Your task to perform on an android device: Open settings on Google Maps Image 0: 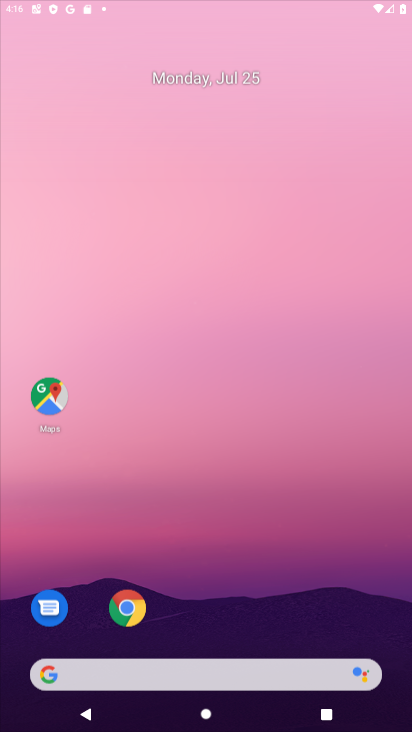
Step 0: press home button
Your task to perform on an android device: Open settings on Google Maps Image 1: 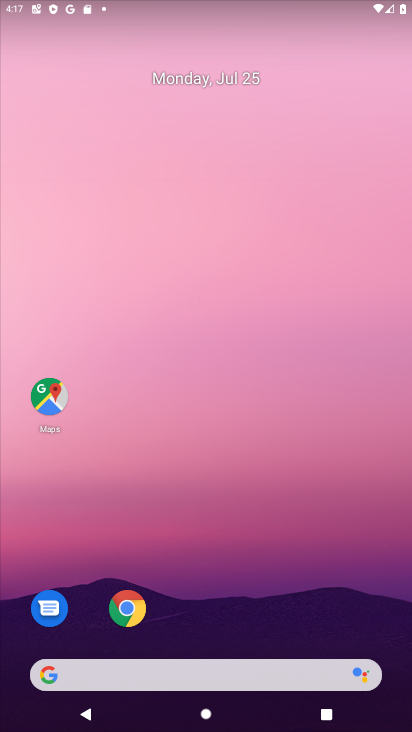
Step 1: click (50, 391)
Your task to perform on an android device: Open settings on Google Maps Image 2: 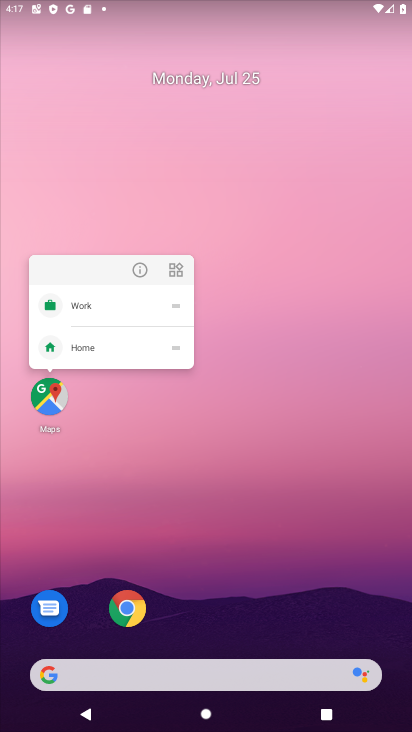
Step 2: click (103, 459)
Your task to perform on an android device: Open settings on Google Maps Image 3: 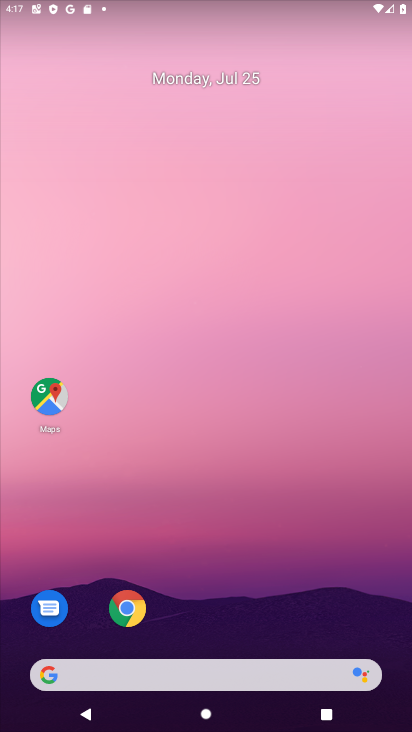
Step 3: click (49, 394)
Your task to perform on an android device: Open settings on Google Maps Image 4: 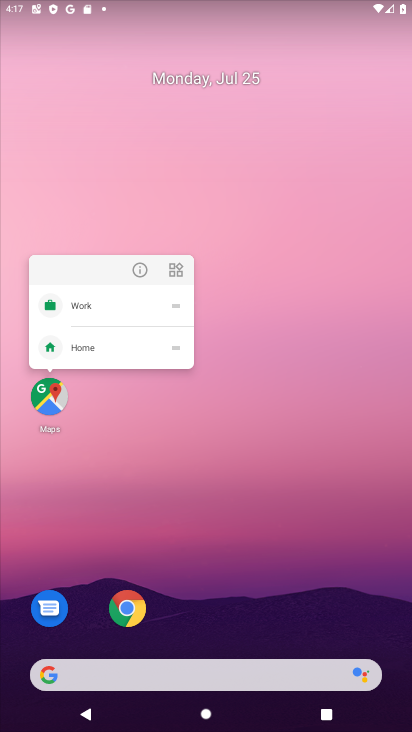
Step 4: click (42, 398)
Your task to perform on an android device: Open settings on Google Maps Image 5: 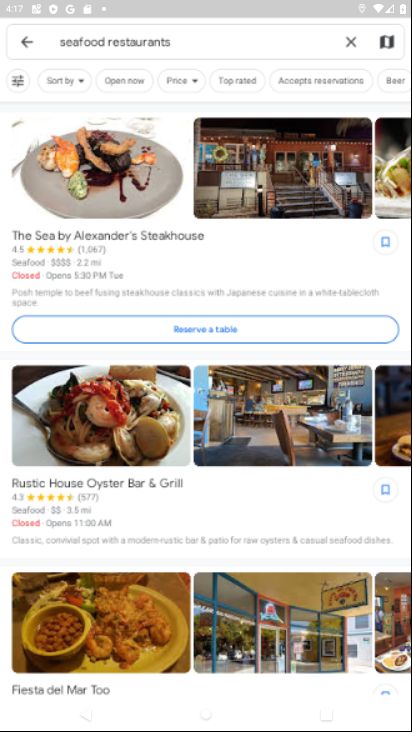
Step 5: click (27, 43)
Your task to perform on an android device: Open settings on Google Maps Image 6: 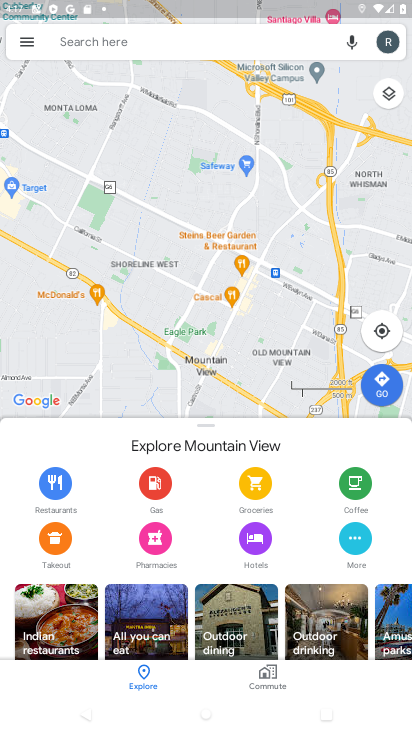
Step 6: click (20, 38)
Your task to perform on an android device: Open settings on Google Maps Image 7: 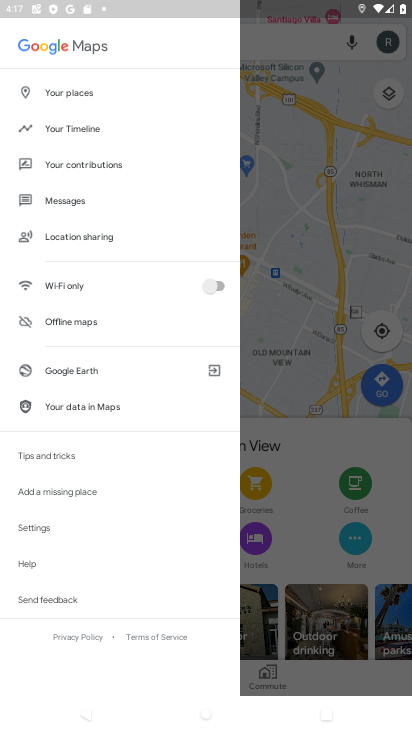
Step 7: click (61, 521)
Your task to perform on an android device: Open settings on Google Maps Image 8: 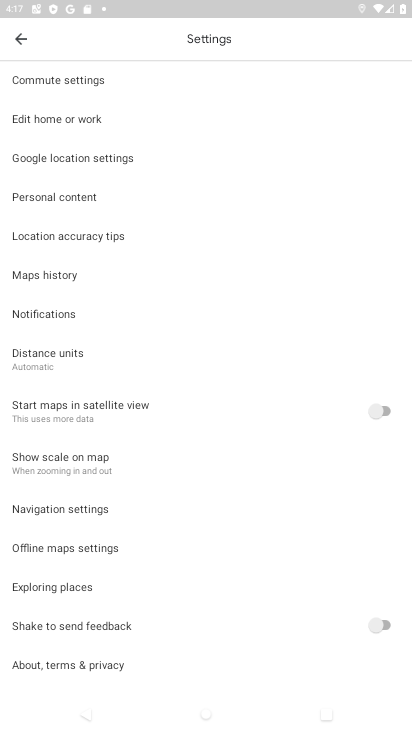
Step 8: task complete